Your task to perform on an android device: find snoozed emails in the gmail app Image 0: 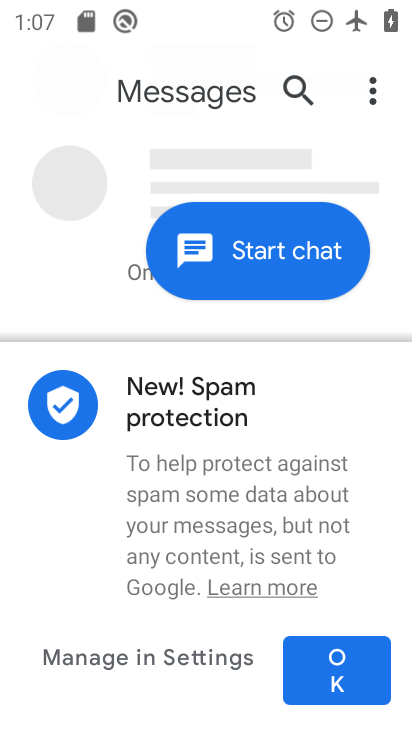
Step 0: press home button
Your task to perform on an android device: find snoozed emails in the gmail app Image 1: 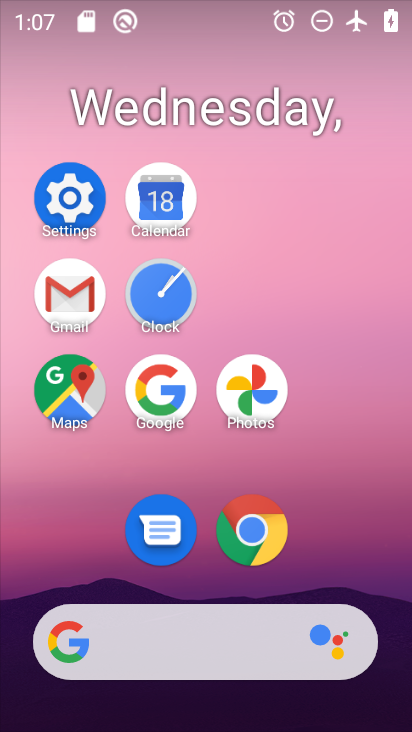
Step 1: click (94, 282)
Your task to perform on an android device: find snoozed emails in the gmail app Image 2: 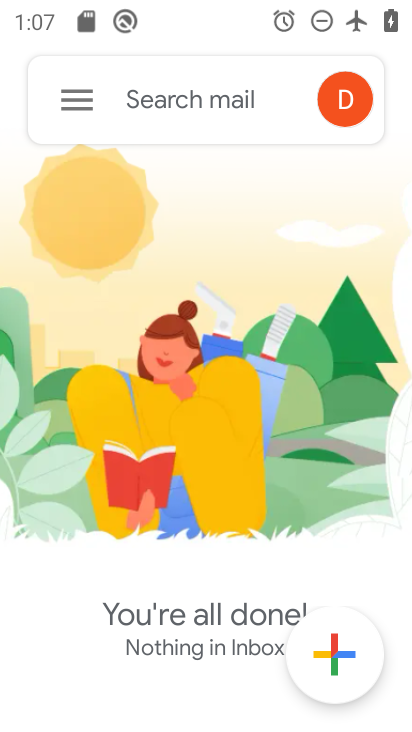
Step 2: click (107, 91)
Your task to perform on an android device: find snoozed emails in the gmail app Image 3: 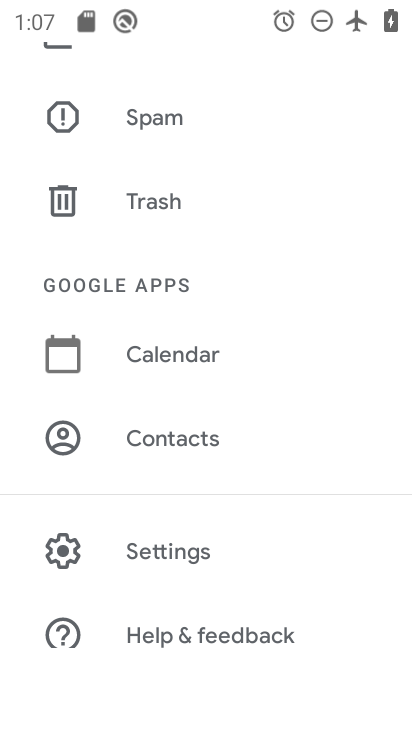
Step 3: press home button
Your task to perform on an android device: find snoozed emails in the gmail app Image 4: 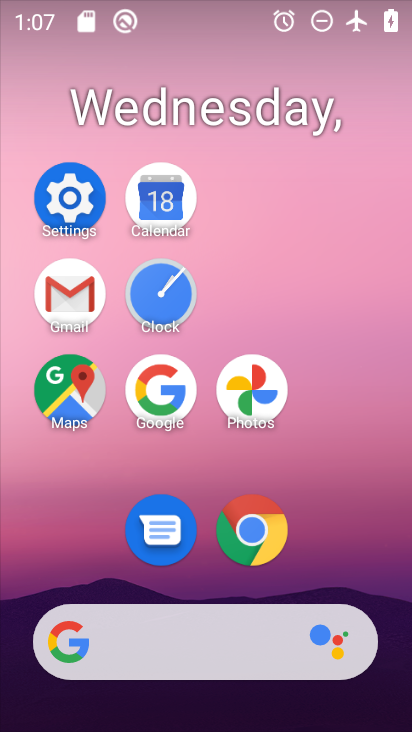
Step 4: click (81, 289)
Your task to perform on an android device: find snoozed emails in the gmail app Image 5: 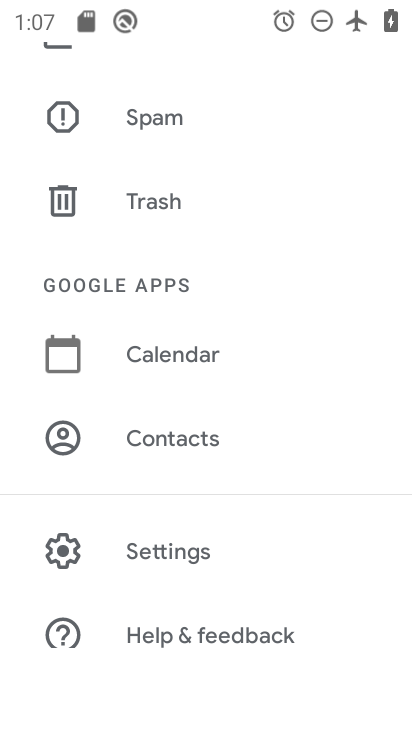
Step 5: drag from (246, 270) to (185, 588)
Your task to perform on an android device: find snoozed emails in the gmail app Image 6: 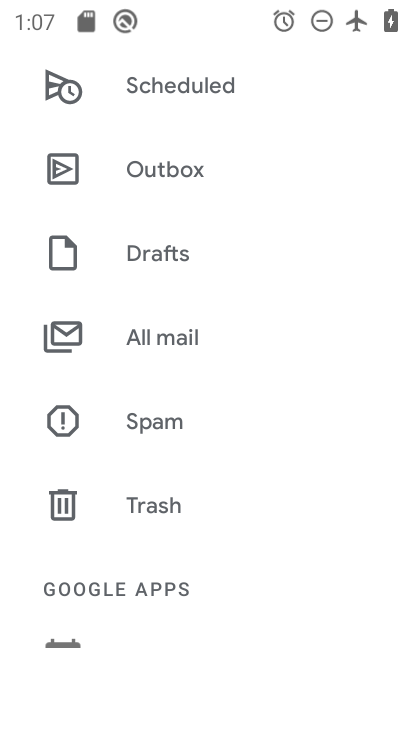
Step 6: drag from (277, 178) to (222, 543)
Your task to perform on an android device: find snoozed emails in the gmail app Image 7: 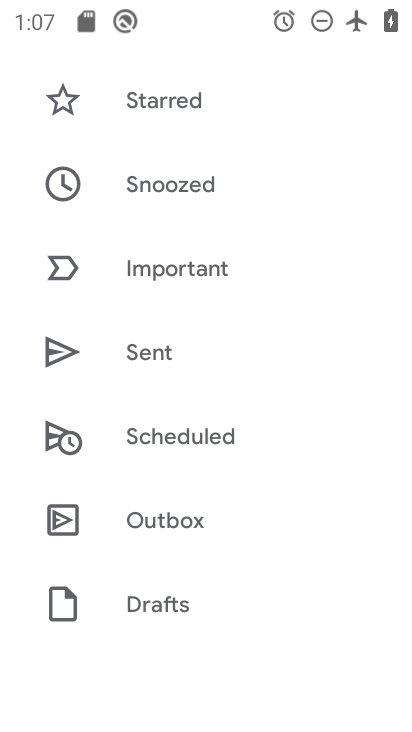
Step 7: drag from (270, 198) to (247, 411)
Your task to perform on an android device: find snoozed emails in the gmail app Image 8: 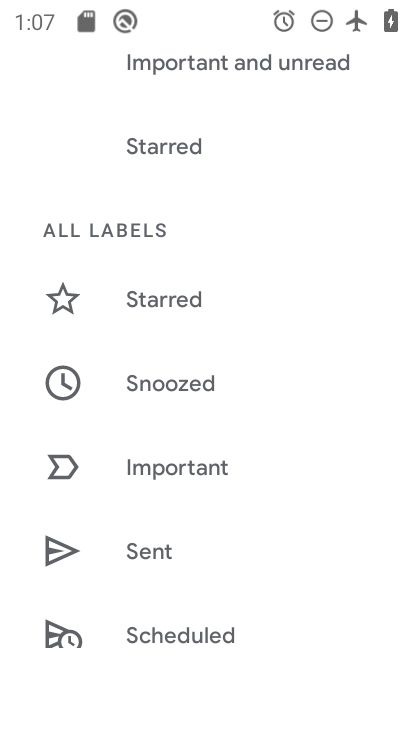
Step 8: click (222, 382)
Your task to perform on an android device: find snoozed emails in the gmail app Image 9: 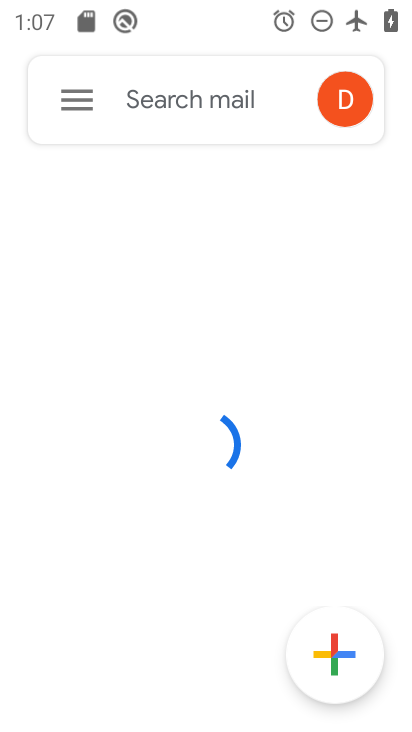
Step 9: task complete